Your task to perform on an android device: Search for sushi restaurants on Maps Image 0: 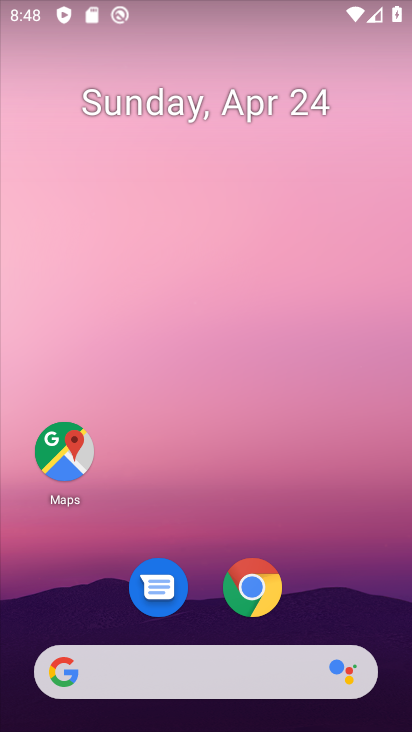
Step 0: click (70, 443)
Your task to perform on an android device: Search for sushi restaurants on Maps Image 1: 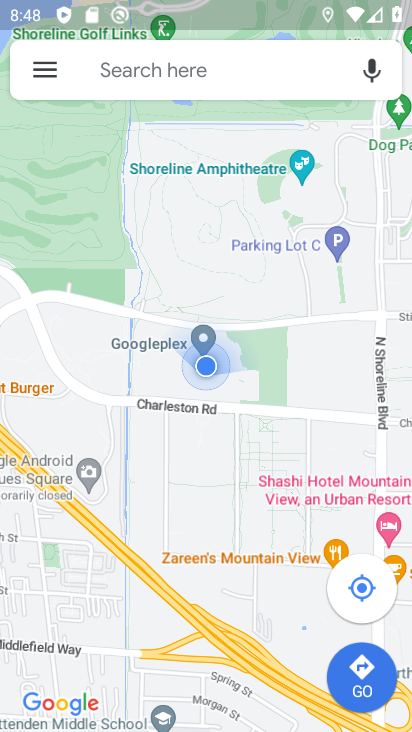
Step 1: click (242, 78)
Your task to perform on an android device: Search for sushi restaurants on Maps Image 2: 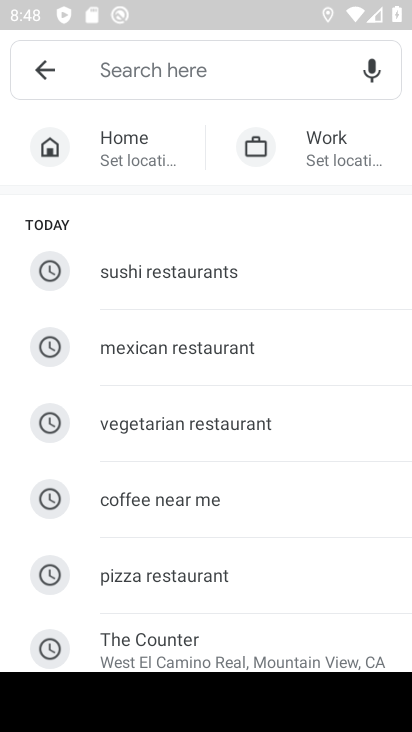
Step 2: click (244, 271)
Your task to perform on an android device: Search for sushi restaurants on Maps Image 3: 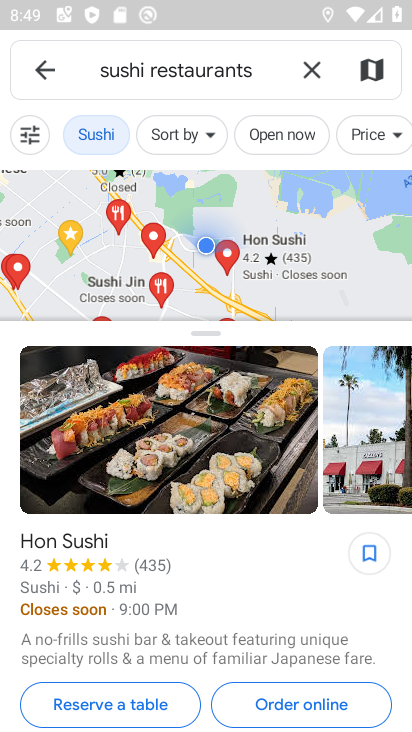
Step 3: task complete